Your task to perform on an android device: delete a single message in the gmail app Image 0: 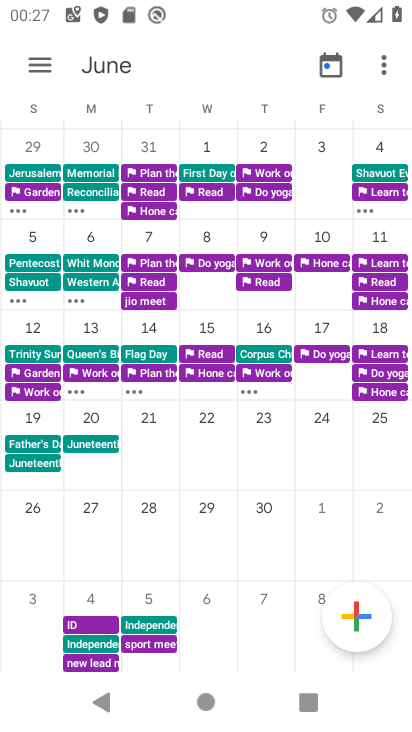
Step 0: press home button
Your task to perform on an android device: delete a single message in the gmail app Image 1: 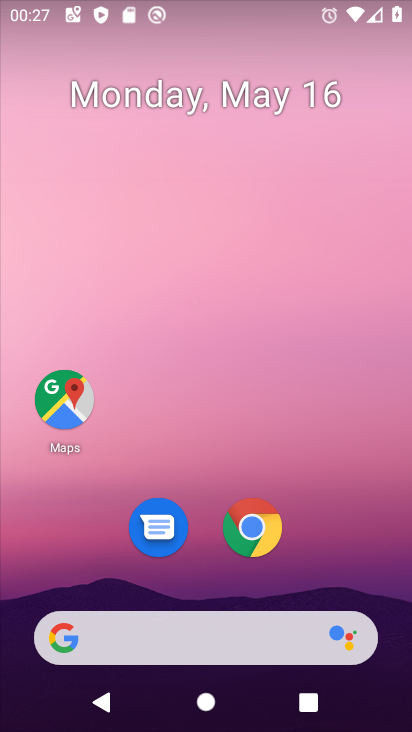
Step 1: drag from (336, 542) to (298, 139)
Your task to perform on an android device: delete a single message in the gmail app Image 2: 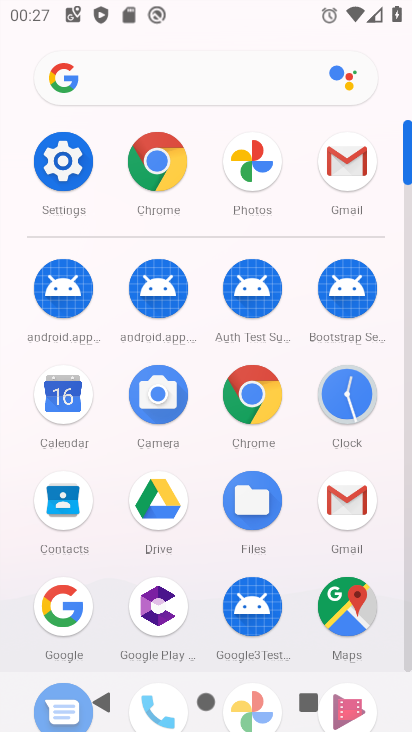
Step 2: click (342, 177)
Your task to perform on an android device: delete a single message in the gmail app Image 3: 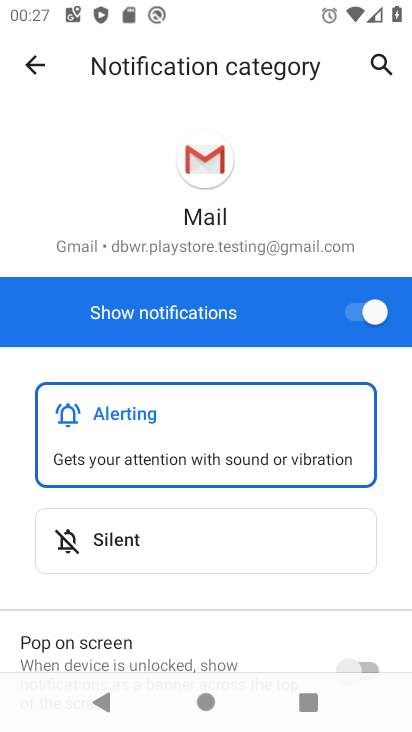
Step 3: click (39, 45)
Your task to perform on an android device: delete a single message in the gmail app Image 4: 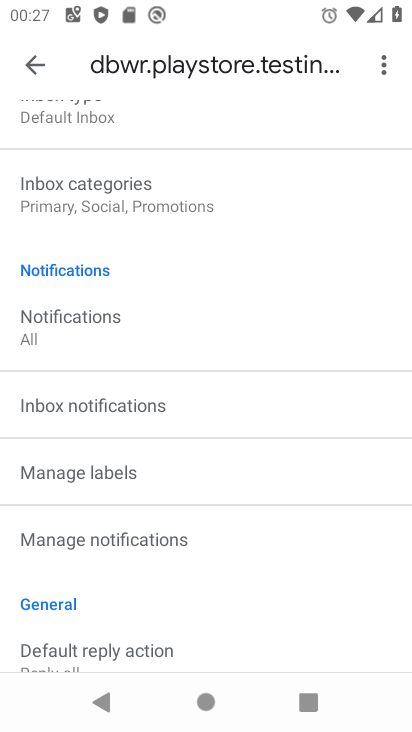
Step 4: drag from (215, 304) to (197, 669)
Your task to perform on an android device: delete a single message in the gmail app Image 5: 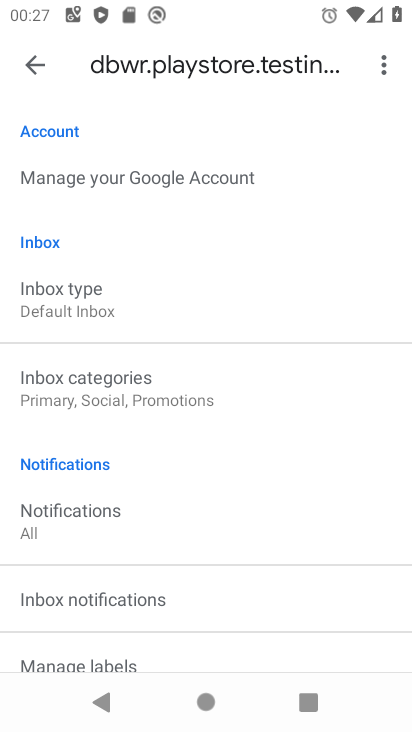
Step 5: drag from (238, 192) to (216, 416)
Your task to perform on an android device: delete a single message in the gmail app Image 6: 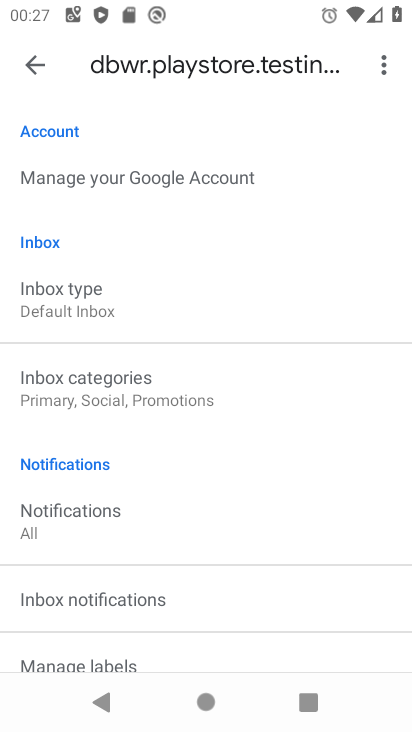
Step 6: click (163, 537)
Your task to perform on an android device: delete a single message in the gmail app Image 7: 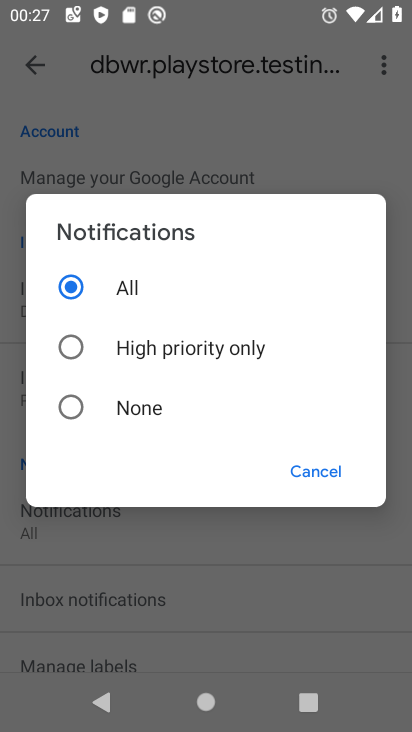
Step 7: click (305, 471)
Your task to perform on an android device: delete a single message in the gmail app Image 8: 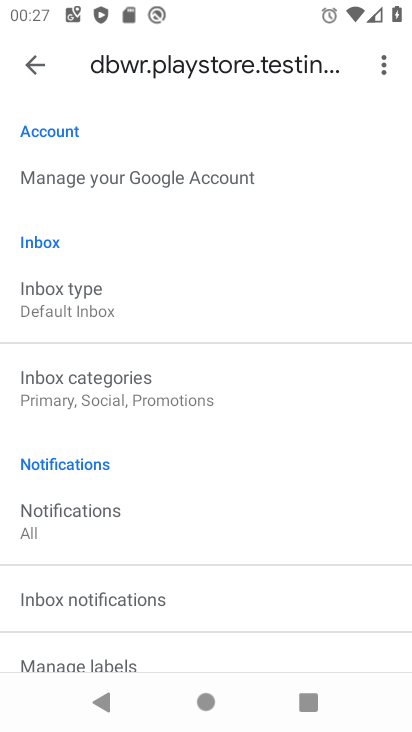
Step 8: press back button
Your task to perform on an android device: delete a single message in the gmail app Image 9: 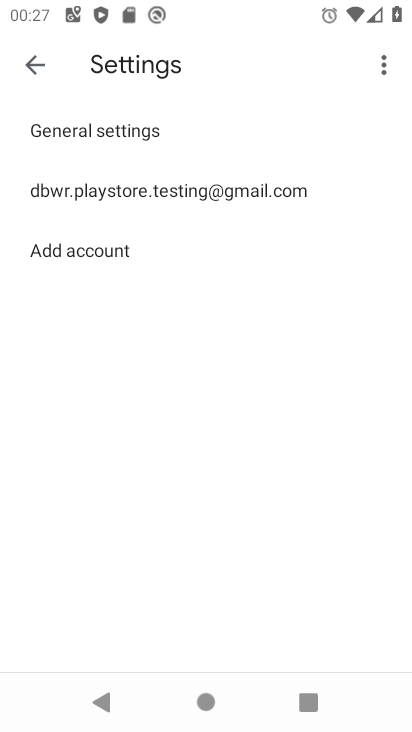
Step 9: click (117, 139)
Your task to perform on an android device: delete a single message in the gmail app Image 10: 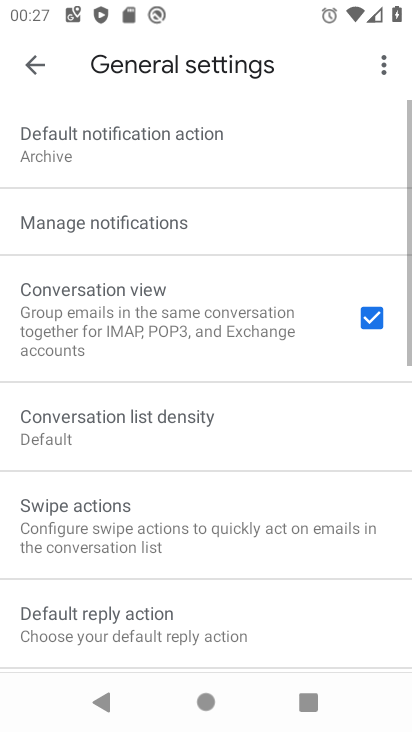
Step 10: click (39, 66)
Your task to perform on an android device: delete a single message in the gmail app Image 11: 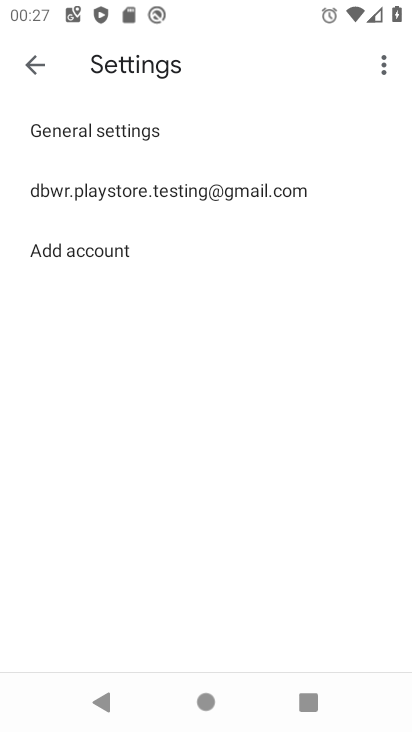
Step 11: click (39, 66)
Your task to perform on an android device: delete a single message in the gmail app Image 12: 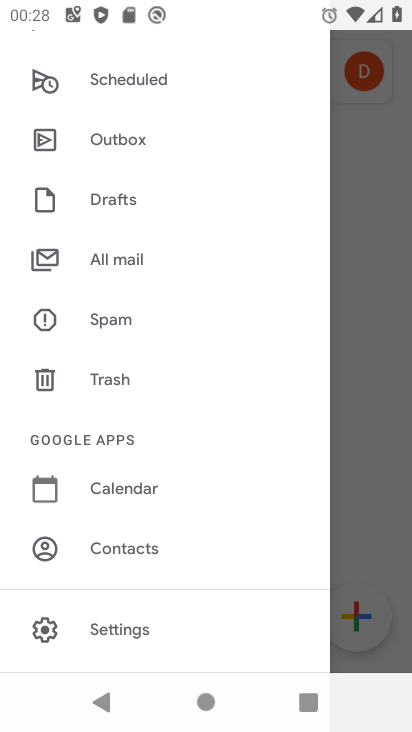
Step 12: click (165, 269)
Your task to perform on an android device: delete a single message in the gmail app Image 13: 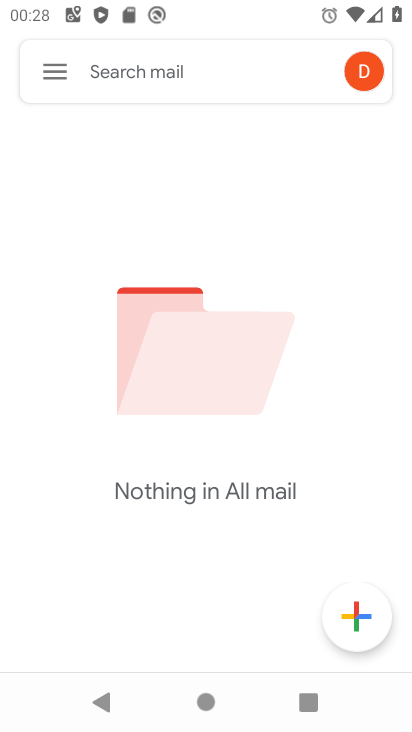
Step 13: task complete